Your task to perform on an android device: turn pop-ups off in chrome Image 0: 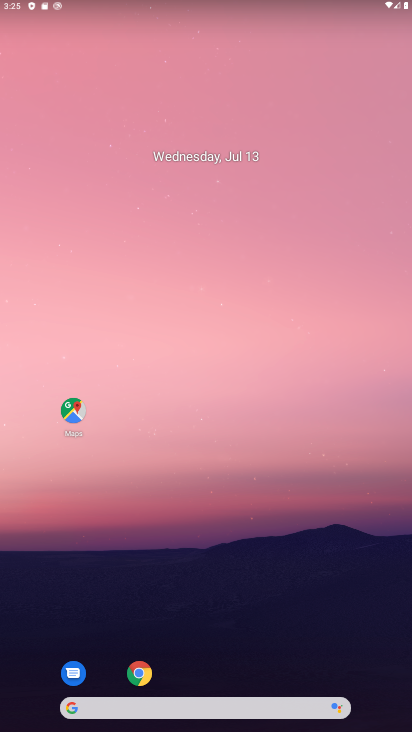
Step 0: click (139, 673)
Your task to perform on an android device: turn pop-ups off in chrome Image 1: 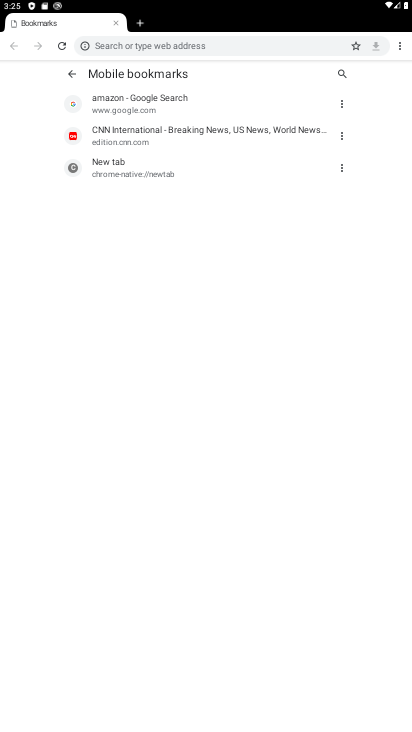
Step 1: click (399, 44)
Your task to perform on an android device: turn pop-ups off in chrome Image 2: 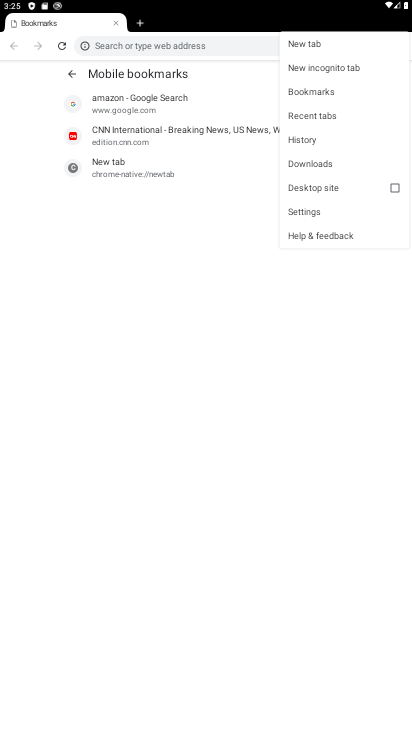
Step 2: click (308, 210)
Your task to perform on an android device: turn pop-ups off in chrome Image 3: 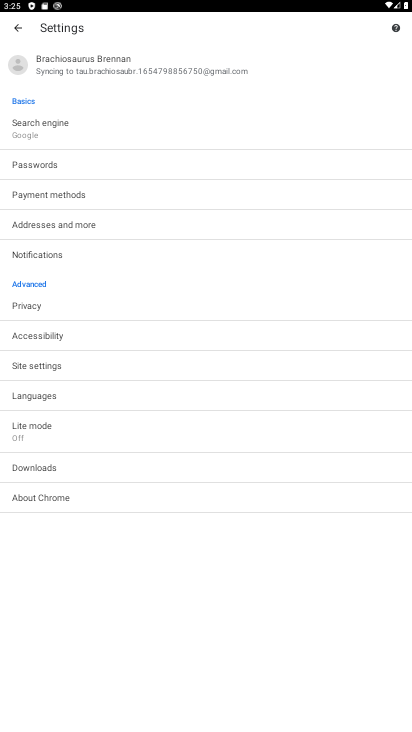
Step 3: click (49, 367)
Your task to perform on an android device: turn pop-ups off in chrome Image 4: 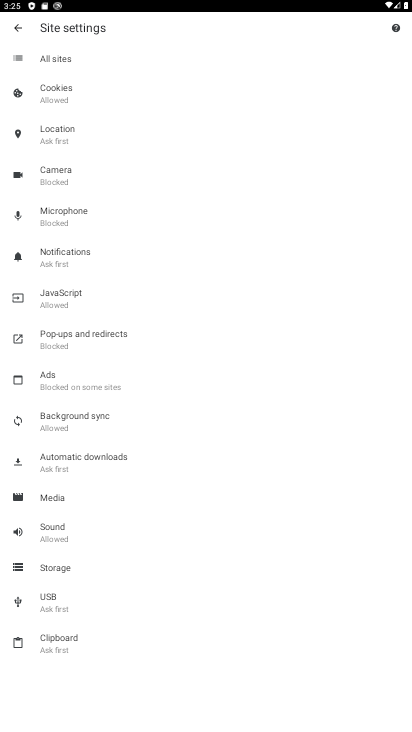
Step 4: click (64, 335)
Your task to perform on an android device: turn pop-ups off in chrome Image 5: 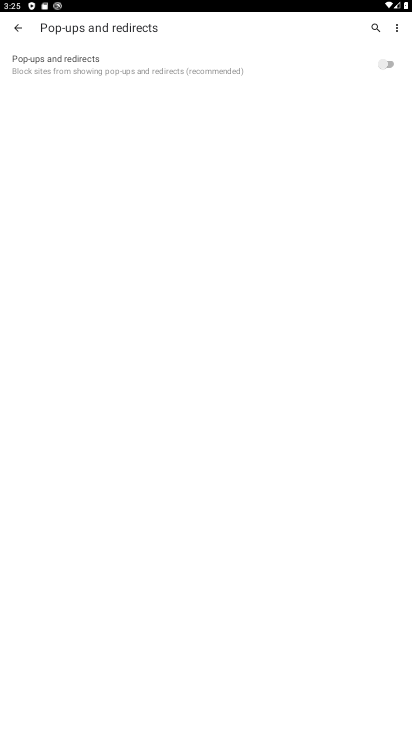
Step 5: task complete